Your task to perform on an android device: open sync settings in chrome Image 0: 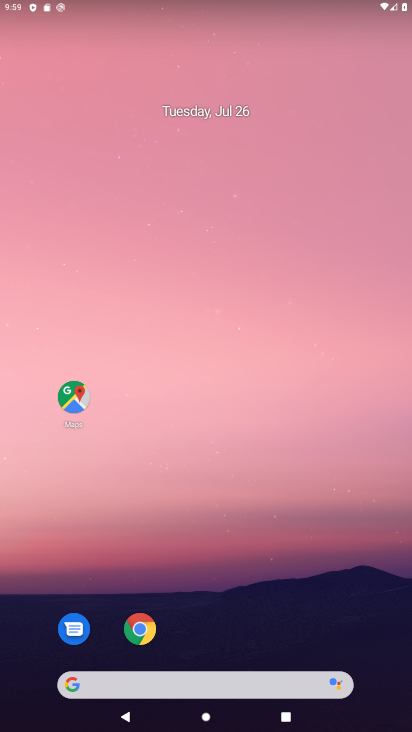
Step 0: click (157, 627)
Your task to perform on an android device: open sync settings in chrome Image 1: 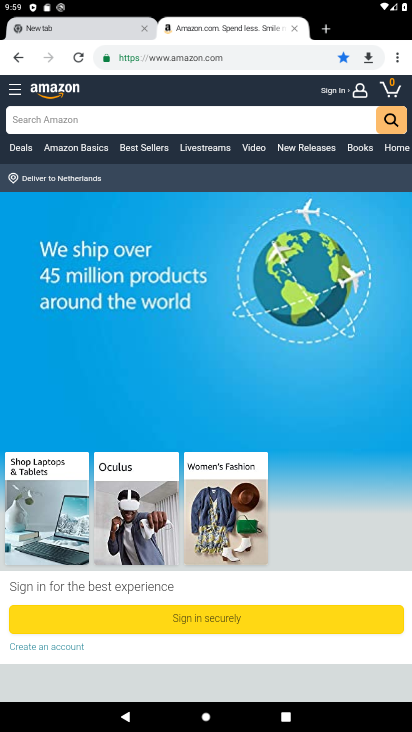
Step 1: click (397, 51)
Your task to perform on an android device: open sync settings in chrome Image 2: 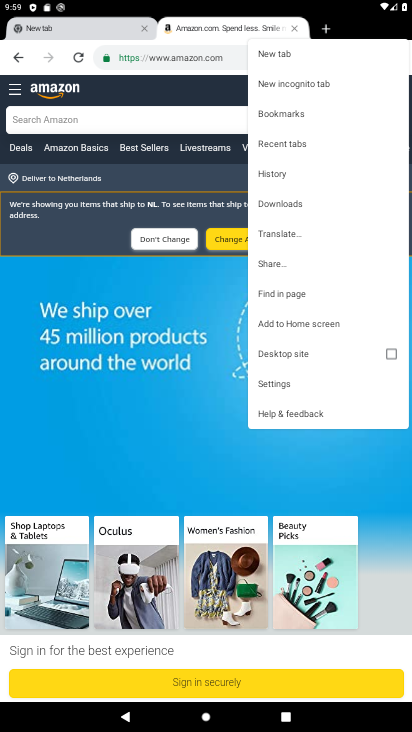
Step 2: click (268, 390)
Your task to perform on an android device: open sync settings in chrome Image 3: 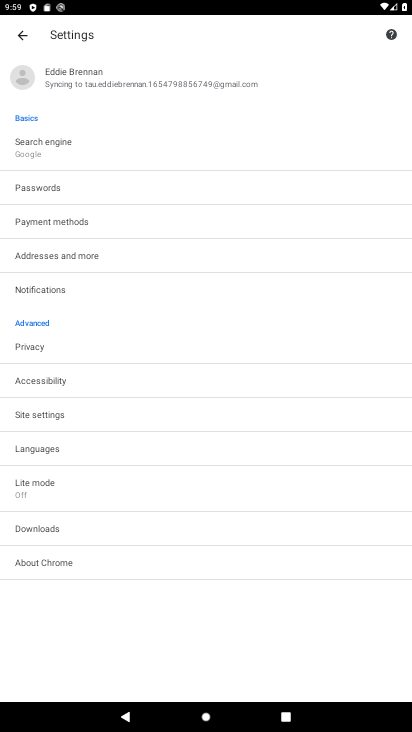
Step 3: click (144, 79)
Your task to perform on an android device: open sync settings in chrome Image 4: 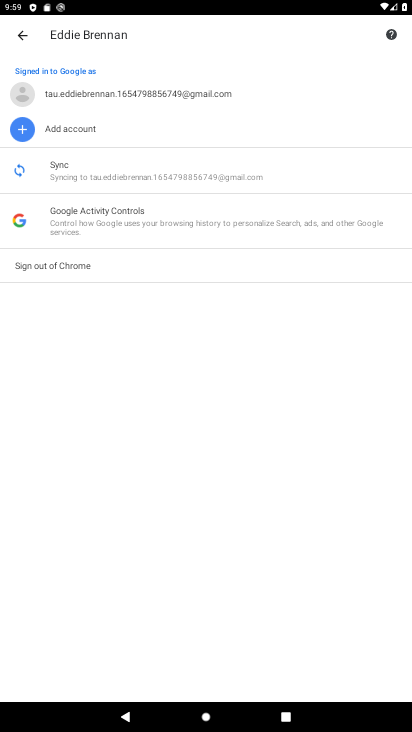
Step 4: task complete